Your task to perform on an android device: Show me popular videos on Youtube Image 0: 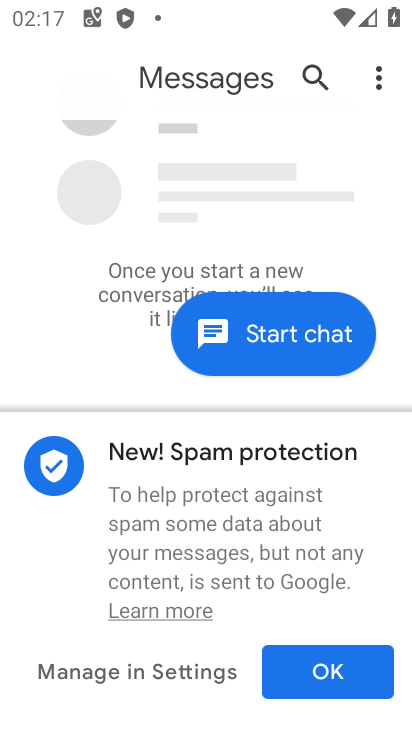
Step 0: press home button
Your task to perform on an android device: Show me popular videos on Youtube Image 1: 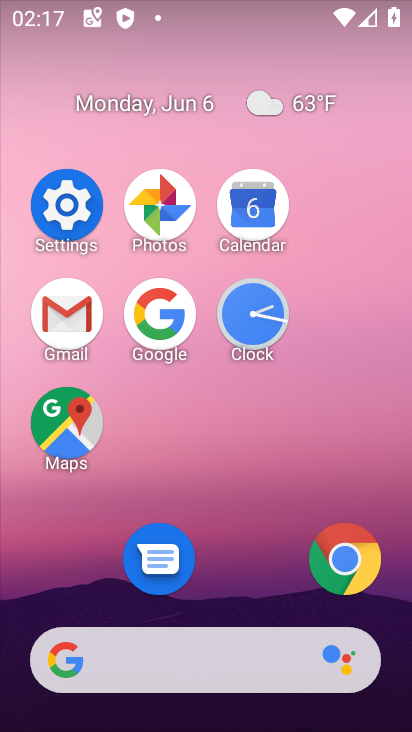
Step 1: drag from (242, 560) to (317, 179)
Your task to perform on an android device: Show me popular videos on Youtube Image 2: 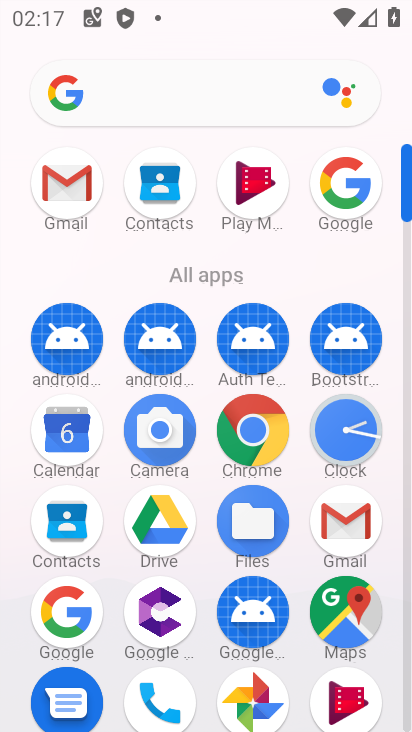
Step 2: drag from (247, 628) to (306, 227)
Your task to perform on an android device: Show me popular videos on Youtube Image 3: 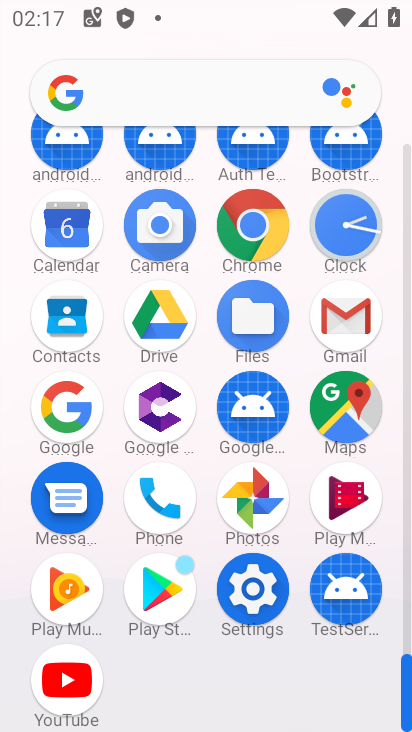
Step 3: drag from (73, 672) to (162, 390)
Your task to perform on an android device: Show me popular videos on Youtube Image 4: 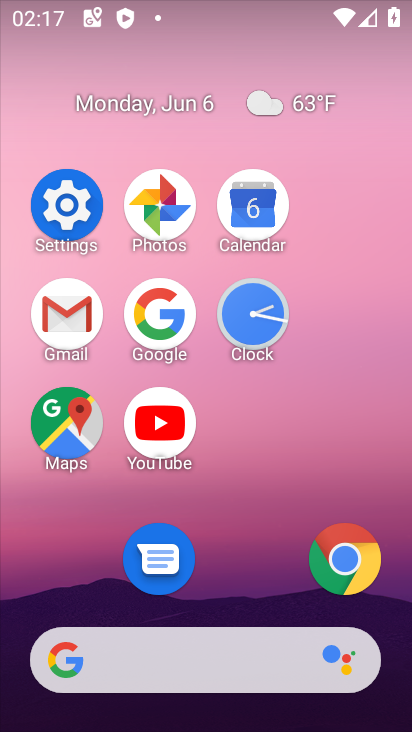
Step 4: click (161, 400)
Your task to perform on an android device: Show me popular videos on Youtube Image 5: 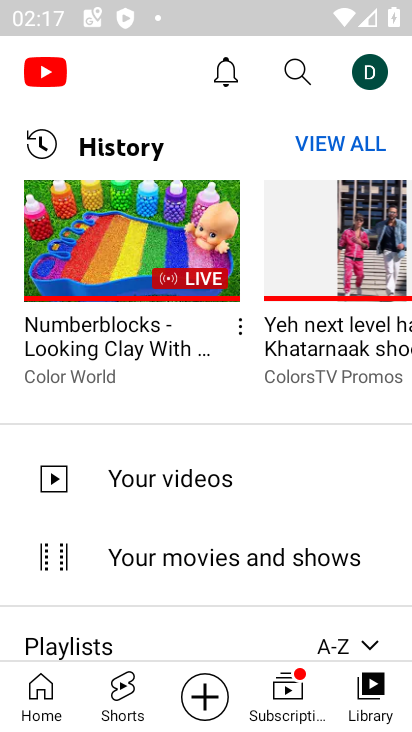
Step 5: task complete